Your task to perform on an android device: Open calendar and show me the first week of next month Image 0: 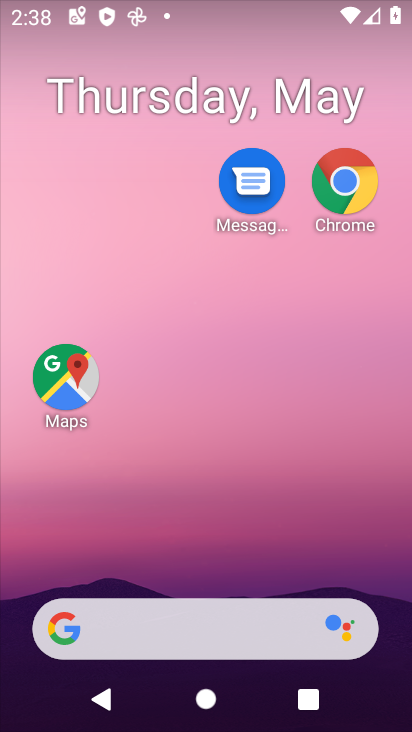
Step 0: drag from (278, 643) to (243, 14)
Your task to perform on an android device: Open calendar and show me the first week of next month Image 1: 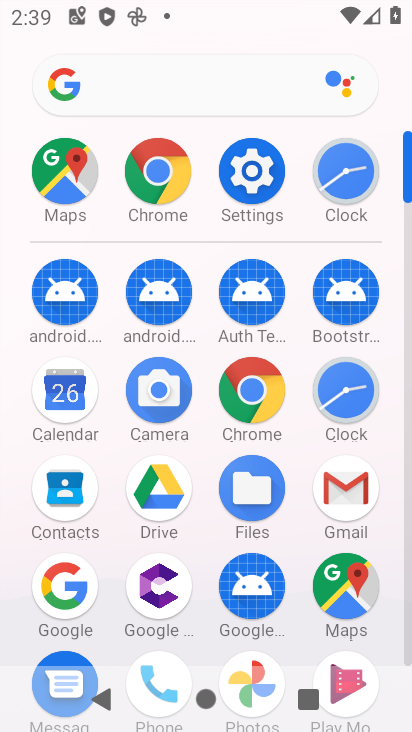
Step 1: click (72, 399)
Your task to perform on an android device: Open calendar and show me the first week of next month Image 2: 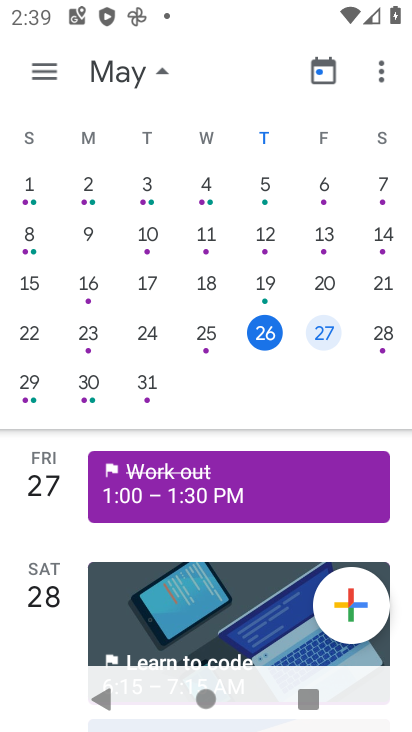
Step 2: task complete